Your task to perform on an android device: Open ESPN.com Image 0: 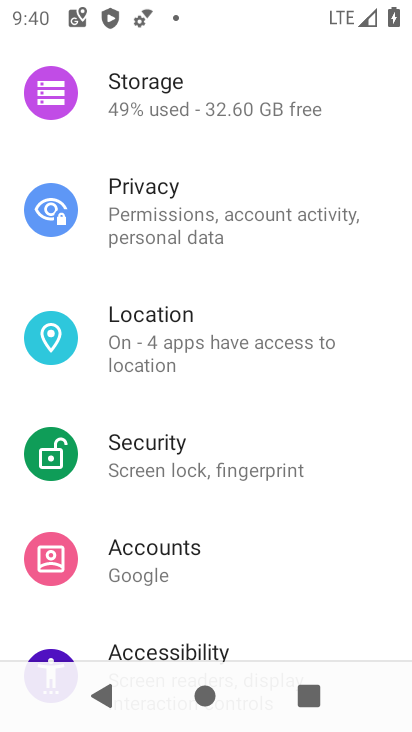
Step 0: press home button
Your task to perform on an android device: Open ESPN.com Image 1: 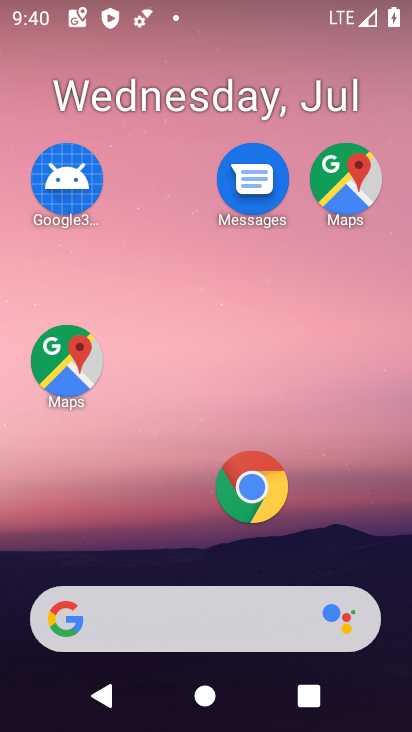
Step 1: click (240, 505)
Your task to perform on an android device: Open ESPN.com Image 2: 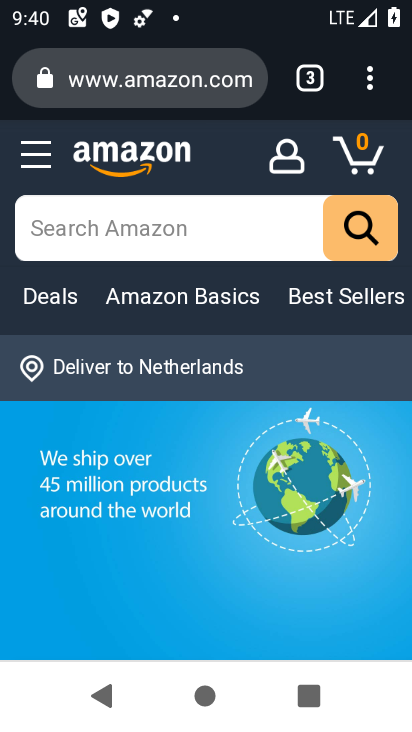
Step 2: click (307, 69)
Your task to perform on an android device: Open ESPN.com Image 3: 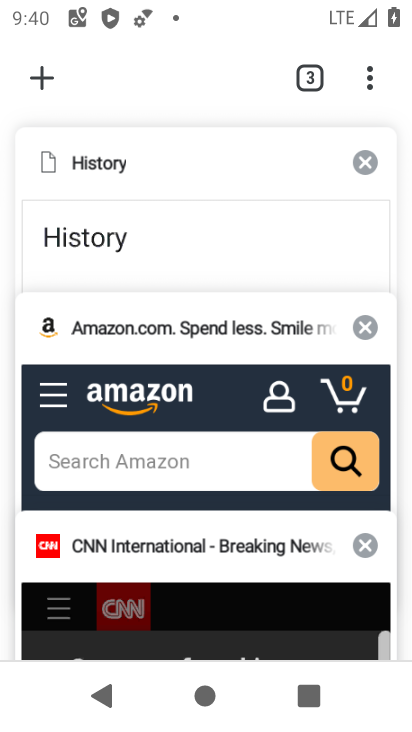
Step 3: click (56, 81)
Your task to perform on an android device: Open ESPN.com Image 4: 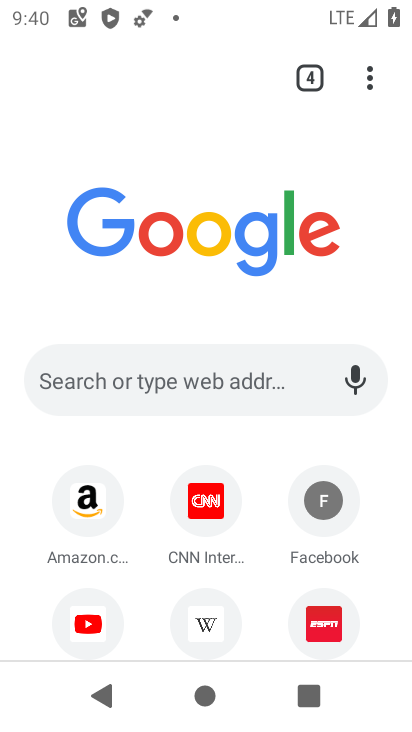
Step 4: click (322, 611)
Your task to perform on an android device: Open ESPN.com Image 5: 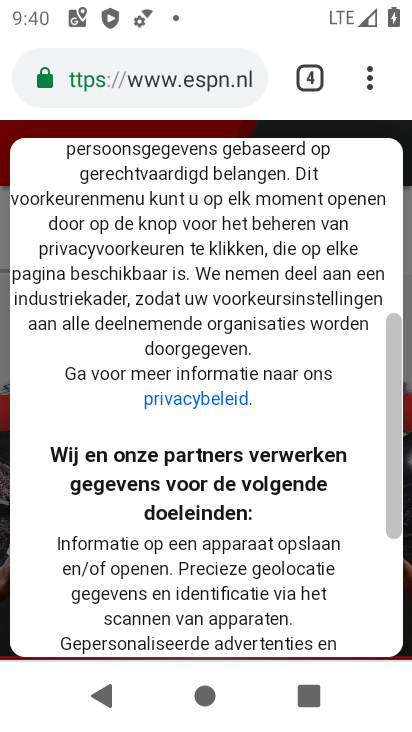
Step 5: task complete